Your task to perform on an android device: Open Chrome and go to settings Image 0: 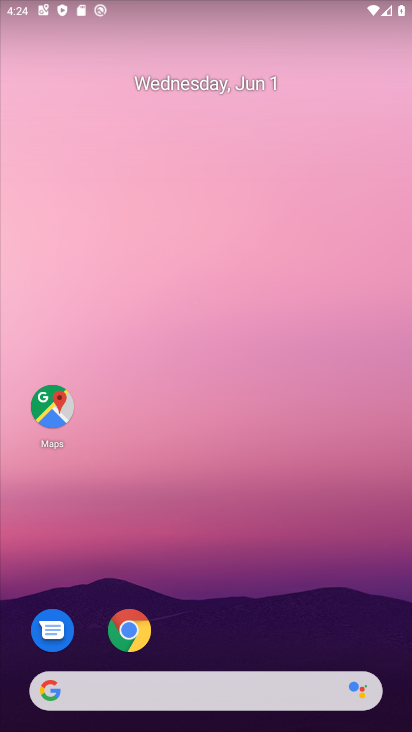
Step 0: click (130, 633)
Your task to perform on an android device: Open Chrome and go to settings Image 1: 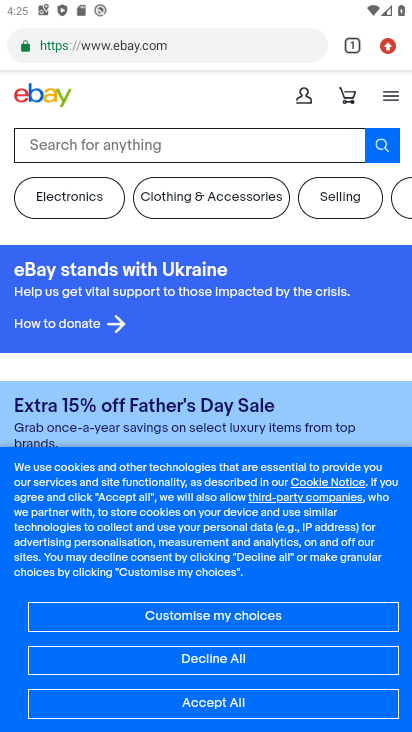
Step 1: click (400, 35)
Your task to perform on an android device: Open Chrome and go to settings Image 2: 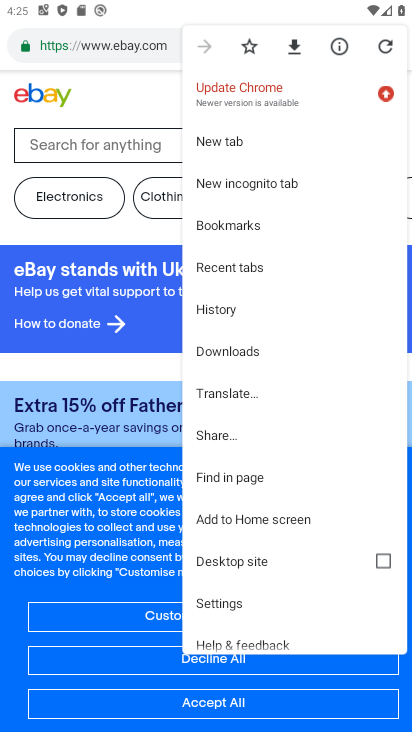
Step 2: click (249, 598)
Your task to perform on an android device: Open Chrome and go to settings Image 3: 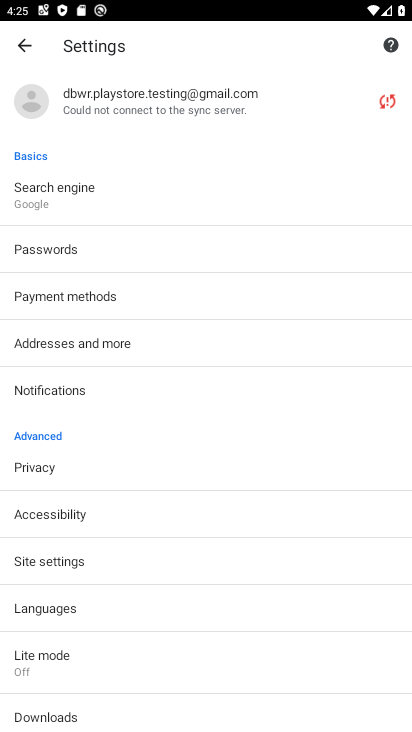
Step 3: task complete